Your task to perform on an android device: turn off improve location accuracy Image 0: 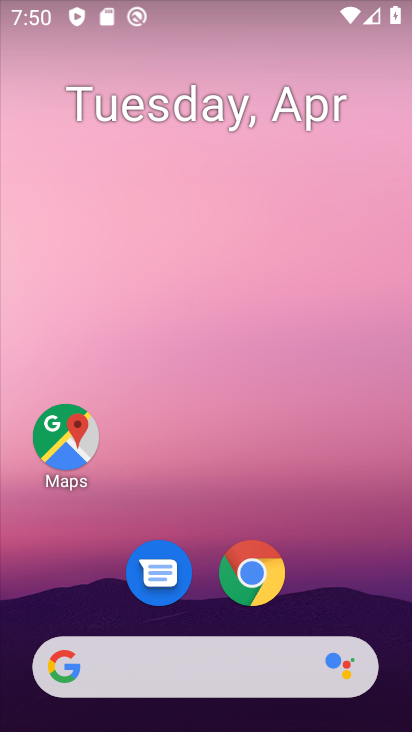
Step 0: drag from (256, 12) to (248, 506)
Your task to perform on an android device: turn off improve location accuracy Image 1: 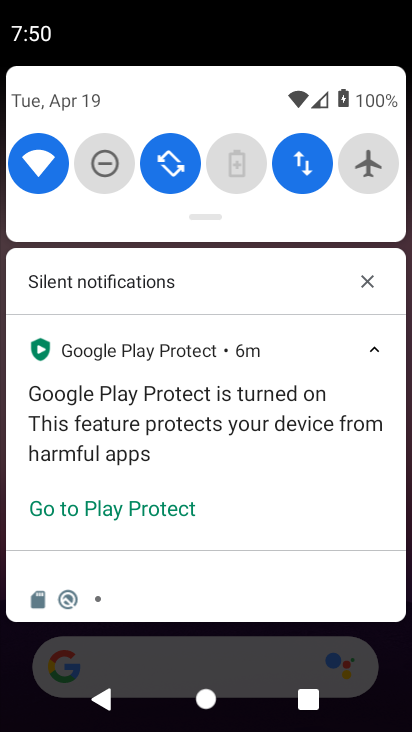
Step 1: drag from (182, 75) to (230, 550)
Your task to perform on an android device: turn off improve location accuracy Image 2: 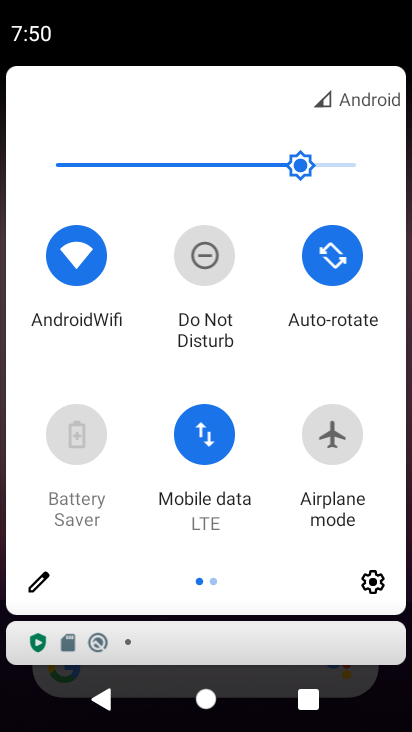
Step 2: click (369, 575)
Your task to perform on an android device: turn off improve location accuracy Image 3: 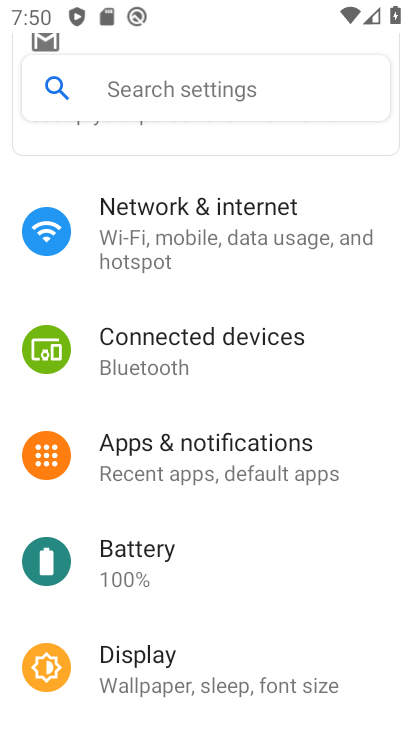
Step 3: drag from (227, 602) to (254, 49)
Your task to perform on an android device: turn off improve location accuracy Image 4: 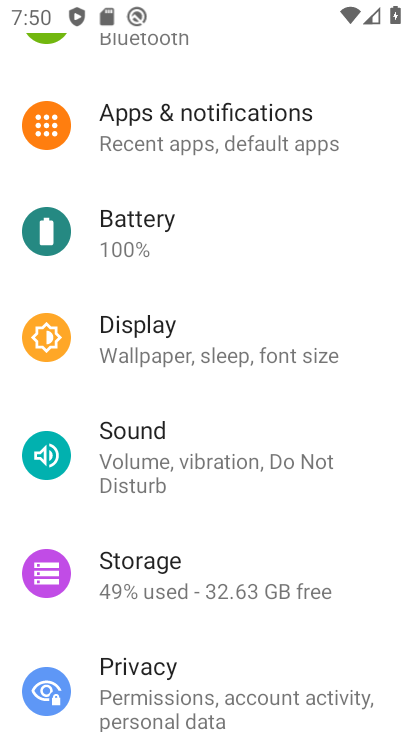
Step 4: drag from (132, 648) to (197, 205)
Your task to perform on an android device: turn off improve location accuracy Image 5: 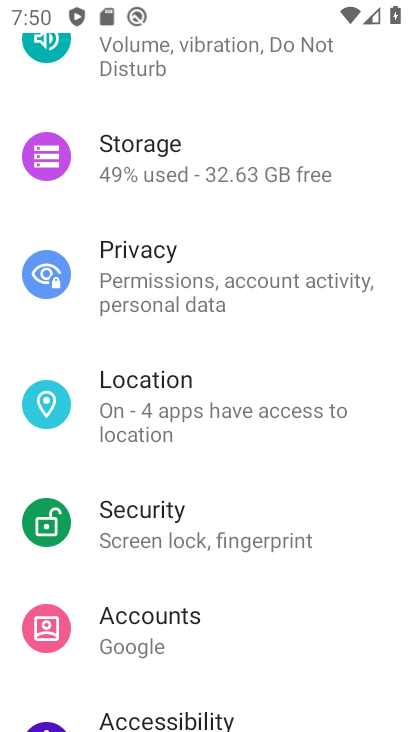
Step 5: click (114, 403)
Your task to perform on an android device: turn off improve location accuracy Image 6: 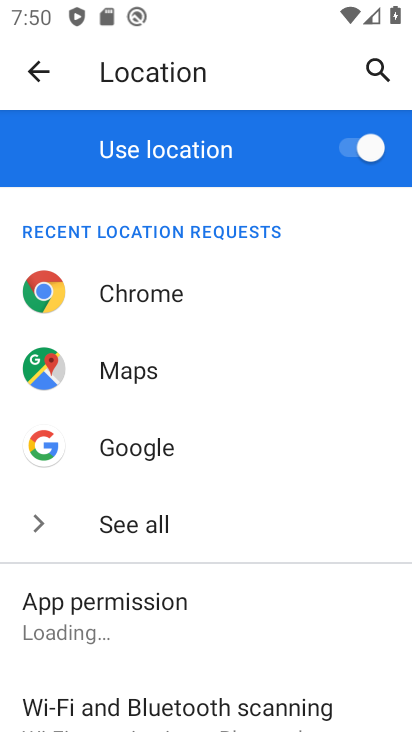
Step 6: drag from (121, 654) to (237, 118)
Your task to perform on an android device: turn off improve location accuracy Image 7: 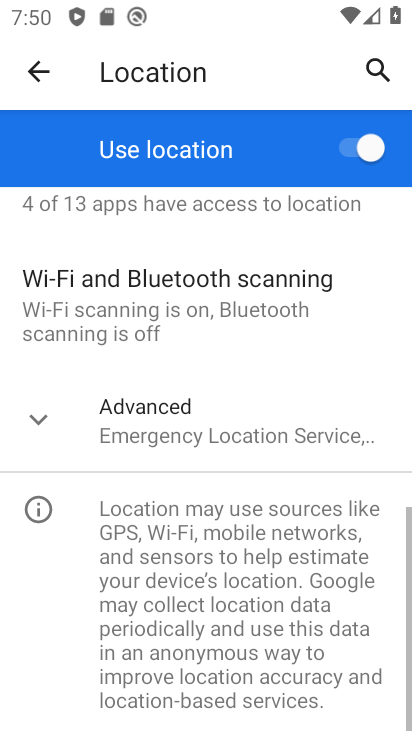
Step 7: click (189, 438)
Your task to perform on an android device: turn off improve location accuracy Image 8: 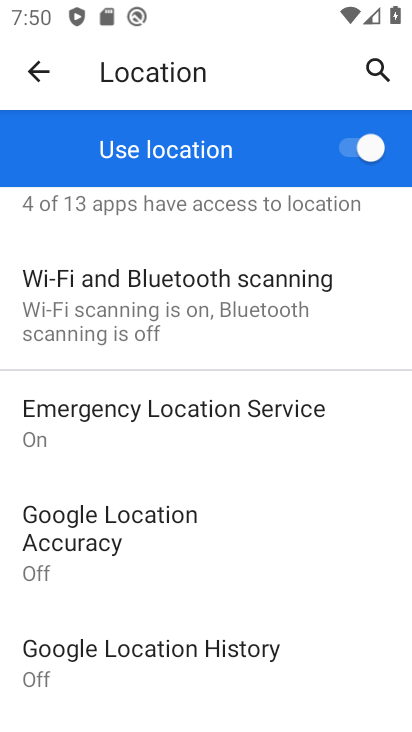
Step 8: click (220, 509)
Your task to perform on an android device: turn off improve location accuracy Image 9: 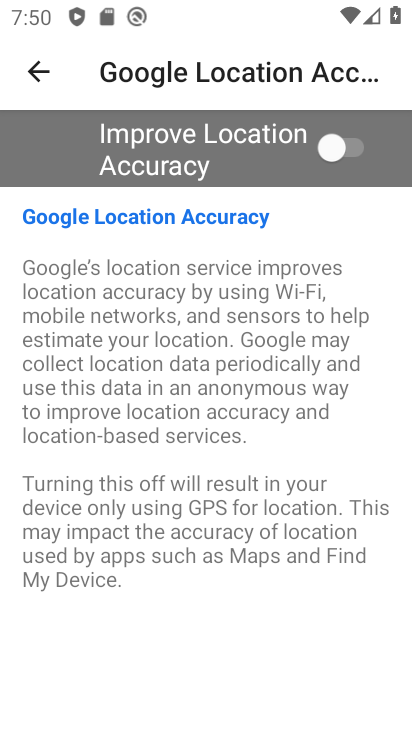
Step 9: task complete